Your task to perform on an android device: Do I have any events tomorrow? Image 0: 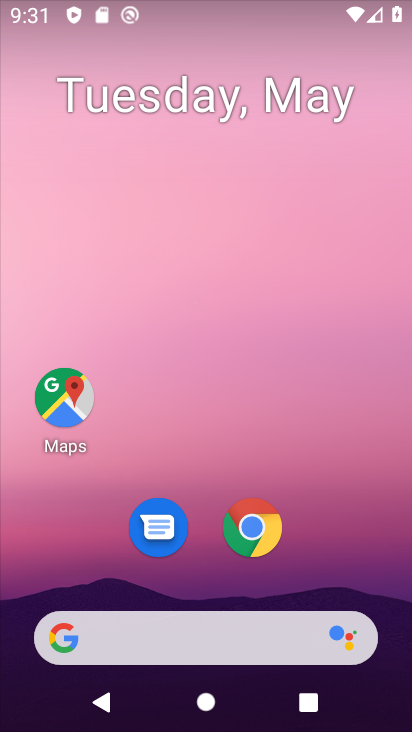
Step 0: drag from (238, 593) to (183, 96)
Your task to perform on an android device: Do I have any events tomorrow? Image 1: 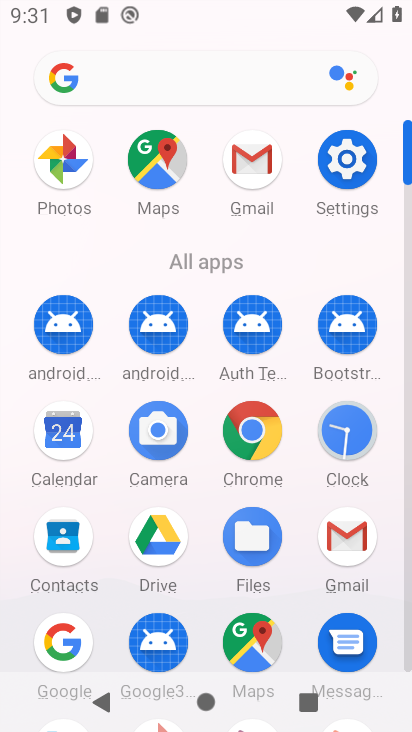
Step 1: click (65, 432)
Your task to perform on an android device: Do I have any events tomorrow? Image 2: 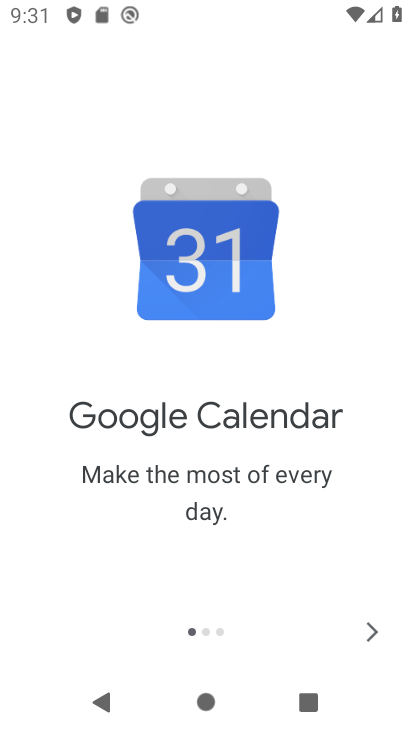
Step 2: click (370, 622)
Your task to perform on an android device: Do I have any events tomorrow? Image 3: 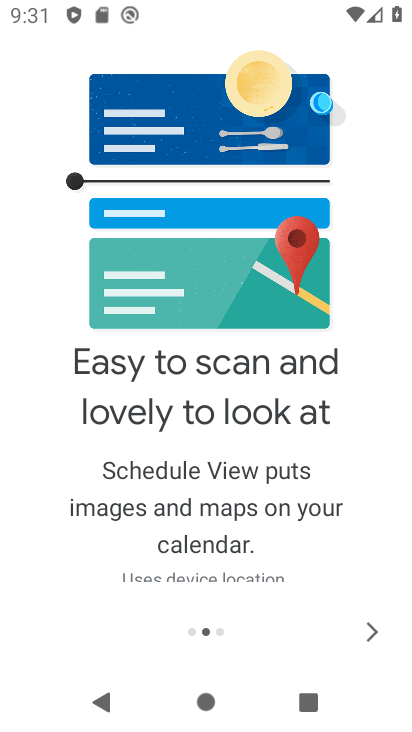
Step 3: click (370, 622)
Your task to perform on an android device: Do I have any events tomorrow? Image 4: 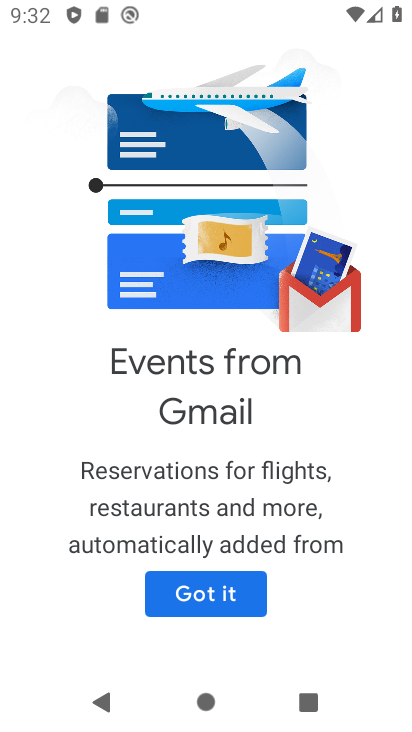
Step 4: click (370, 622)
Your task to perform on an android device: Do I have any events tomorrow? Image 5: 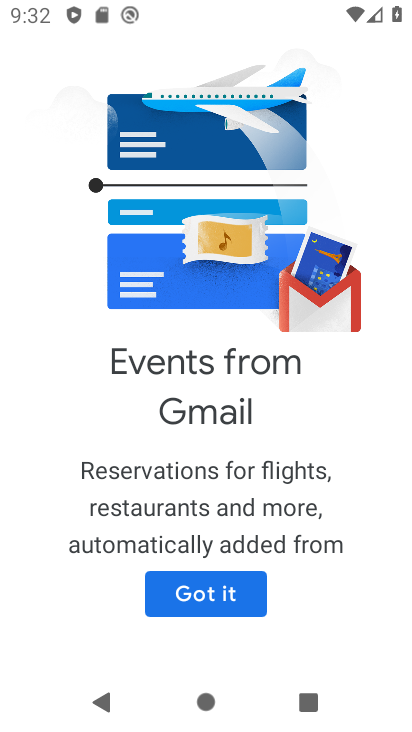
Step 5: click (204, 581)
Your task to perform on an android device: Do I have any events tomorrow? Image 6: 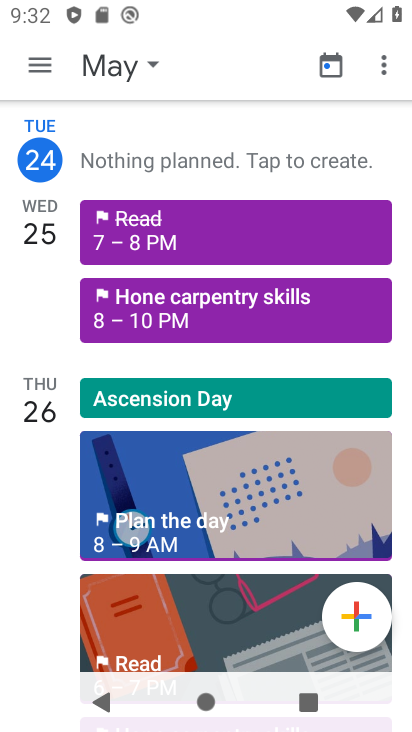
Step 6: click (65, 219)
Your task to perform on an android device: Do I have any events tomorrow? Image 7: 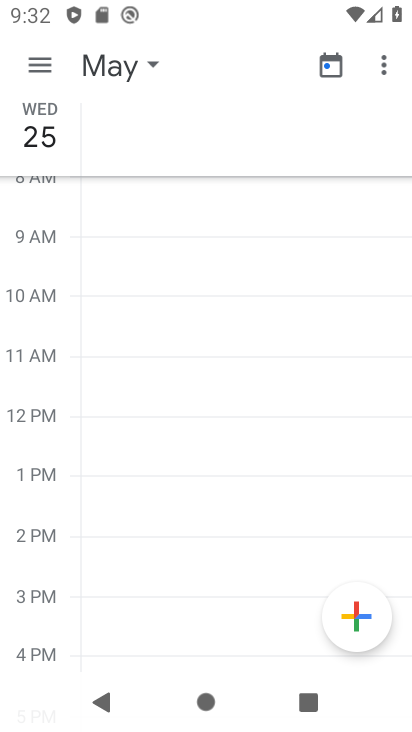
Step 7: task complete